Your task to perform on an android device: Open maps Image 0: 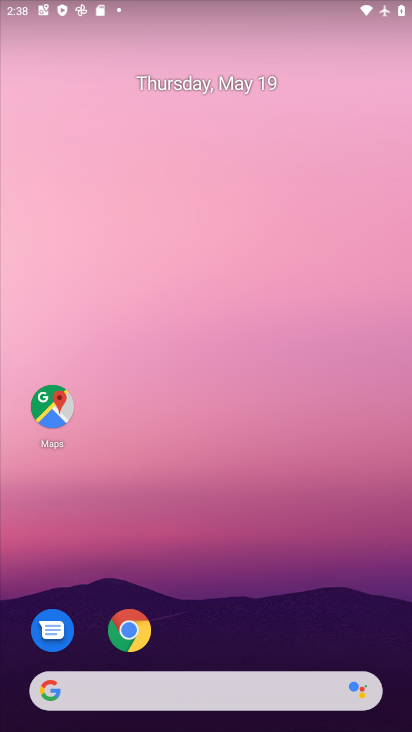
Step 0: click (48, 402)
Your task to perform on an android device: Open maps Image 1: 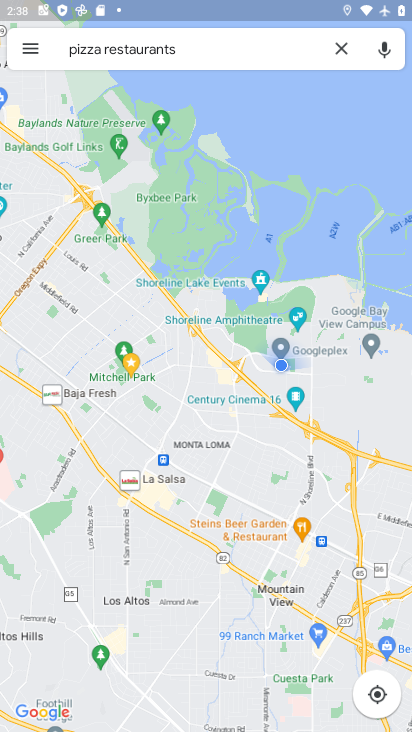
Step 1: task complete